Your task to perform on an android device: Open Google Maps Image 0: 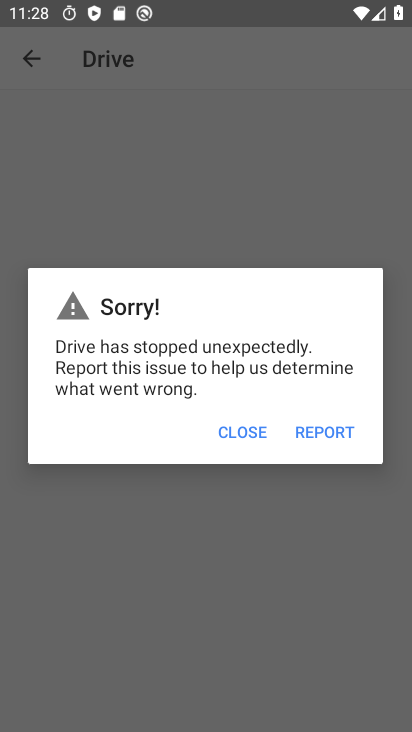
Step 0: press home button
Your task to perform on an android device: Open Google Maps Image 1: 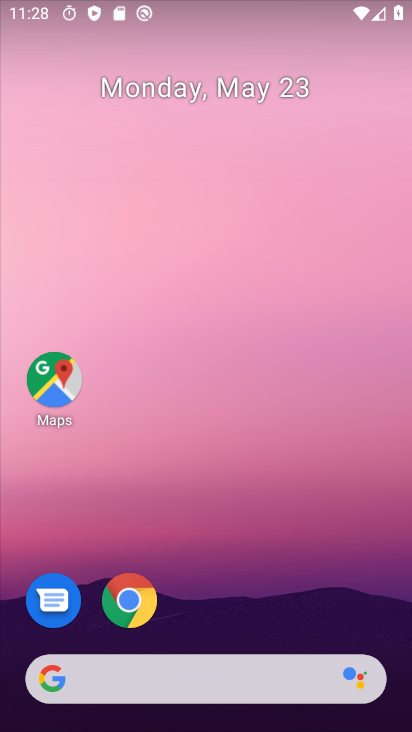
Step 1: drag from (317, 609) to (276, 127)
Your task to perform on an android device: Open Google Maps Image 2: 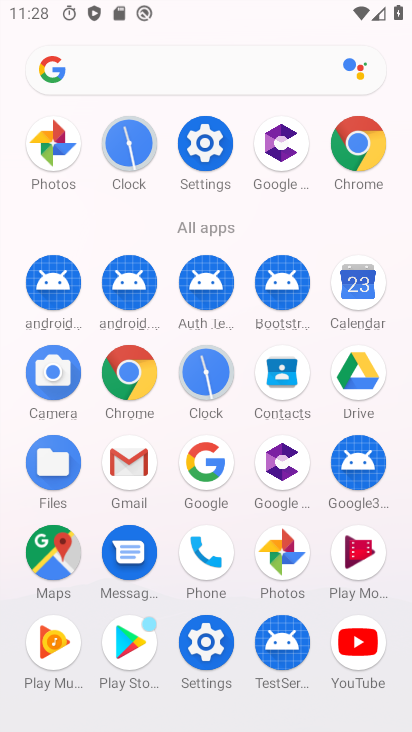
Step 2: click (55, 559)
Your task to perform on an android device: Open Google Maps Image 3: 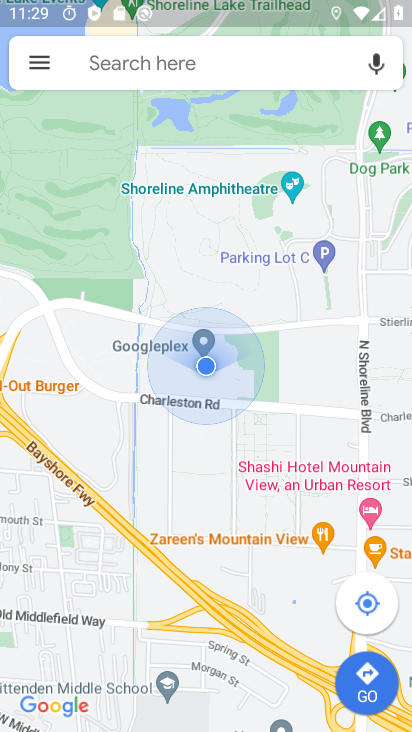
Step 3: task complete